Your task to perform on an android device: remove spam from my inbox in the gmail app Image 0: 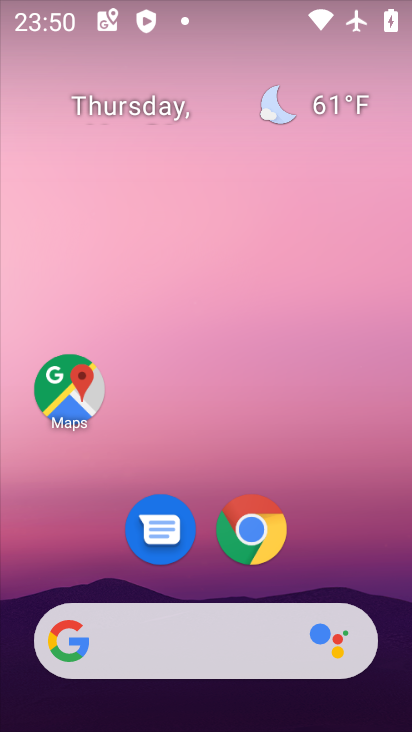
Step 0: drag from (377, 526) to (347, 148)
Your task to perform on an android device: remove spam from my inbox in the gmail app Image 1: 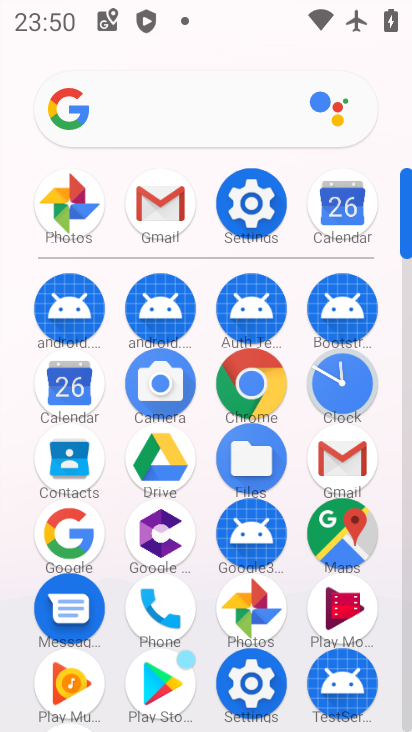
Step 1: click (170, 199)
Your task to perform on an android device: remove spam from my inbox in the gmail app Image 2: 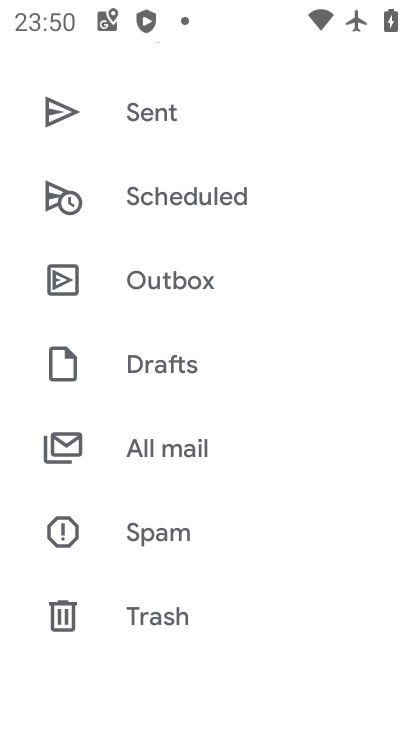
Step 2: task complete